Your task to perform on an android device: set the stopwatch Image 0: 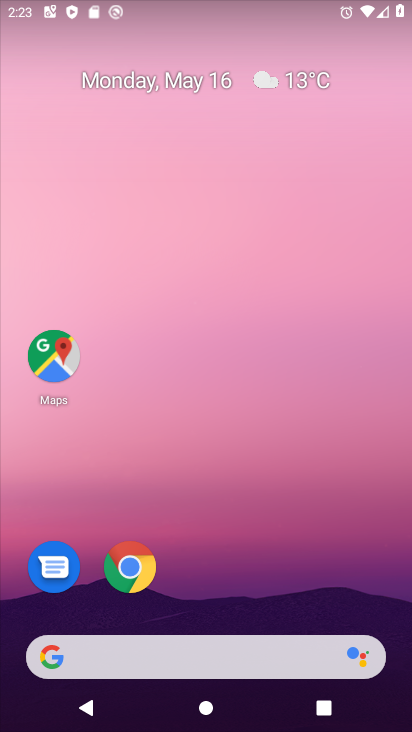
Step 0: drag from (263, 572) to (286, 355)
Your task to perform on an android device: set the stopwatch Image 1: 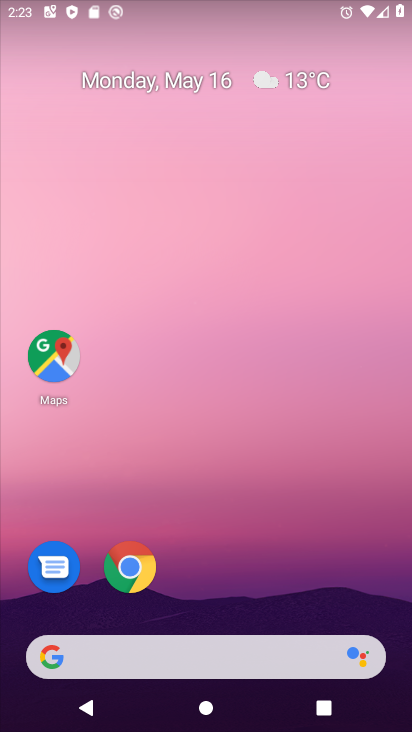
Step 1: drag from (244, 476) to (282, 65)
Your task to perform on an android device: set the stopwatch Image 2: 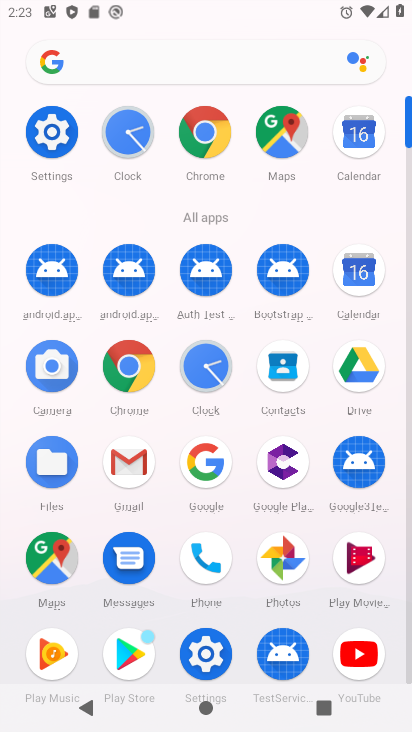
Step 2: click (117, 143)
Your task to perform on an android device: set the stopwatch Image 3: 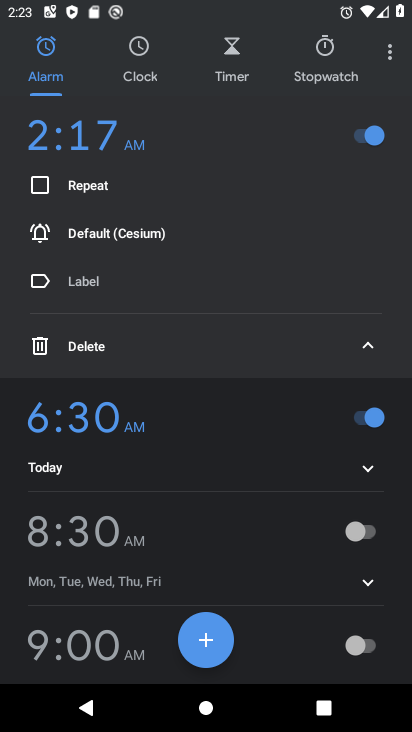
Step 3: click (317, 67)
Your task to perform on an android device: set the stopwatch Image 4: 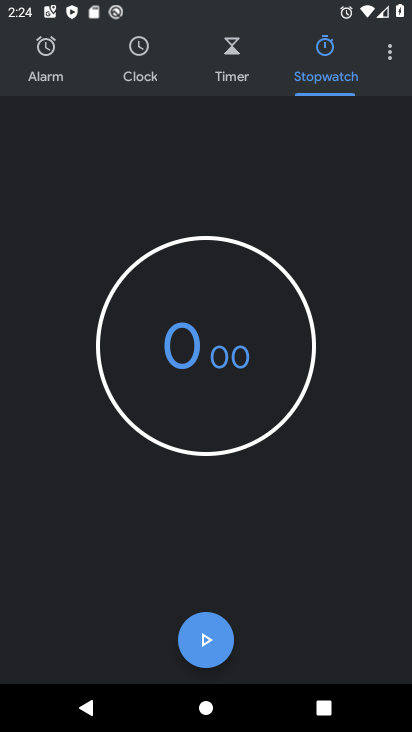
Step 4: click (195, 642)
Your task to perform on an android device: set the stopwatch Image 5: 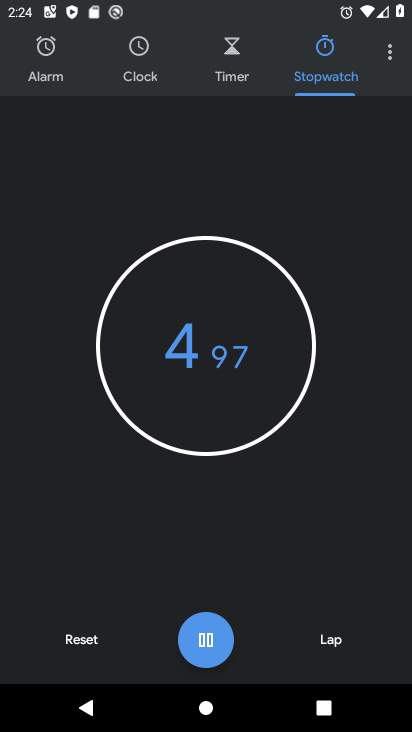
Step 5: task complete